Your task to perform on an android device: turn smart compose on in the gmail app Image 0: 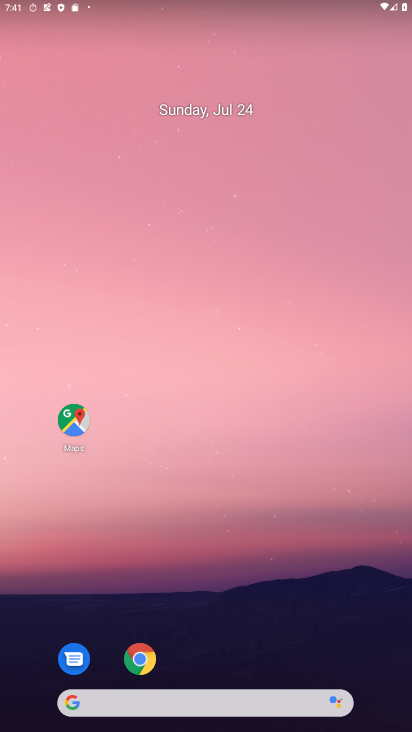
Step 0: drag from (331, 666) to (227, 123)
Your task to perform on an android device: turn smart compose on in the gmail app Image 1: 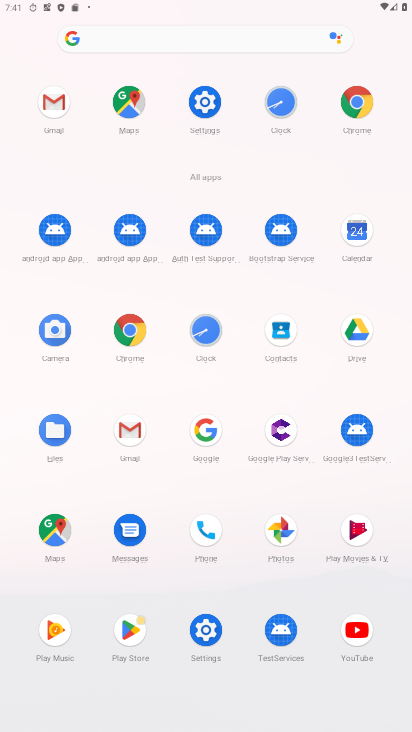
Step 1: click (57, 106)
Your task to perform on an android device: turn smart compose on in the gmail app Image 2: 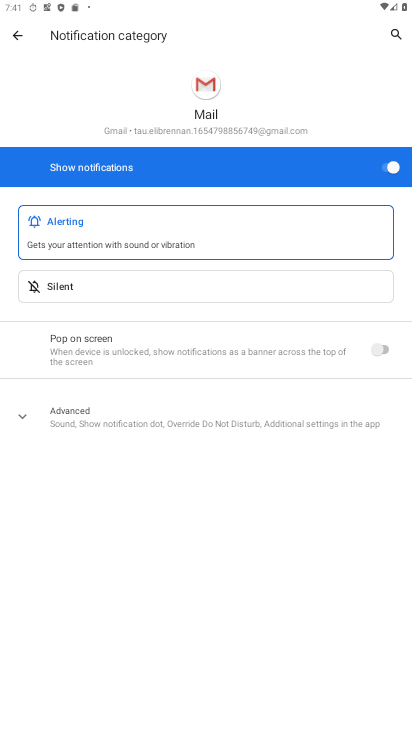
Step 2: click (20, 31)
Your task to perform on an android device: turn smart compose on in the gmail app Image 3: 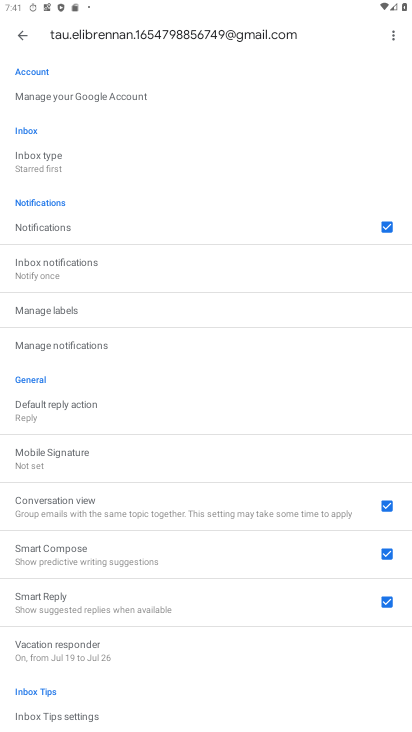
Step 3: click (23, 36)
Your task to perform on an android device: turn smart compose on in the gmail app Image 4: 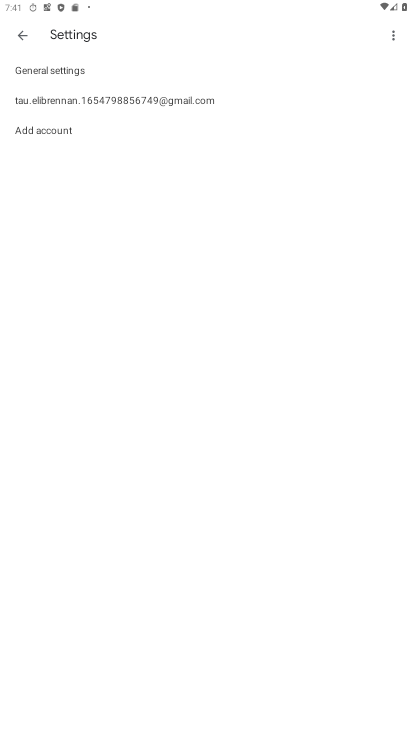
Step 4: click (23, 36)
Your task to perform on an android device: turn smart compose on in the gmail app Image 5: 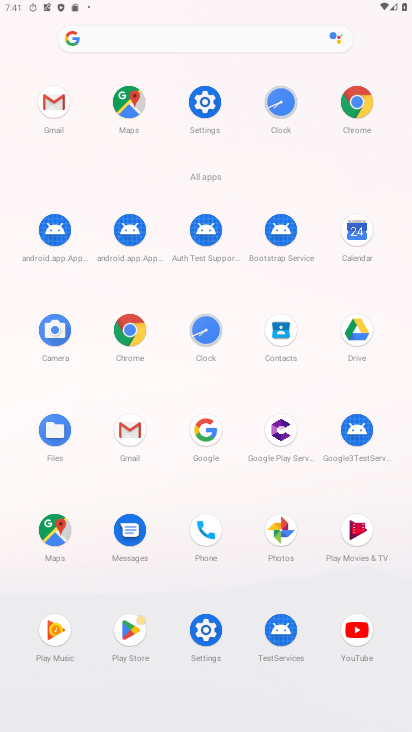
Step 5: click (61, 97)
Your task to perform on an android device: turn smart compose on in the gmail app Image 6: 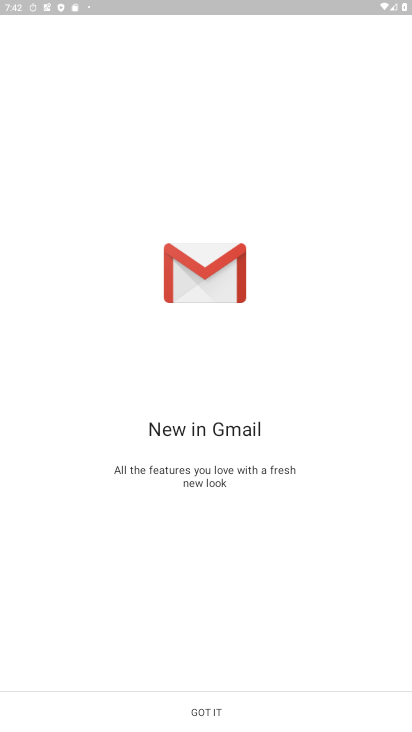
Step 6: click (220, 705)
Your task to perform on an android device: turn smart compose on in the gmail app Image 7: 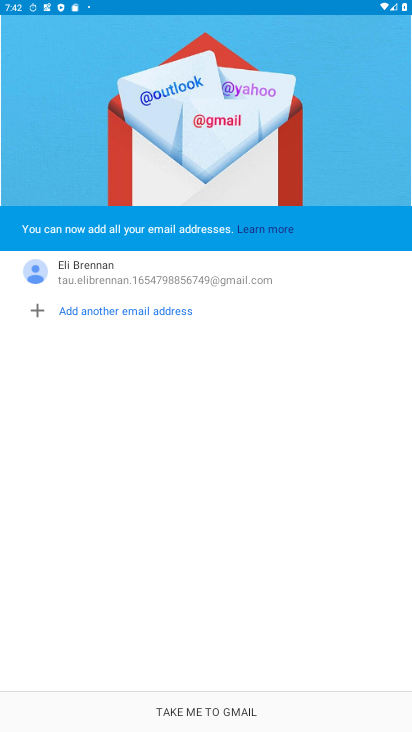
Step 7: click (220, 705)
Your task to perform on an android device: turn smart compose on in the gmail app Image 8: 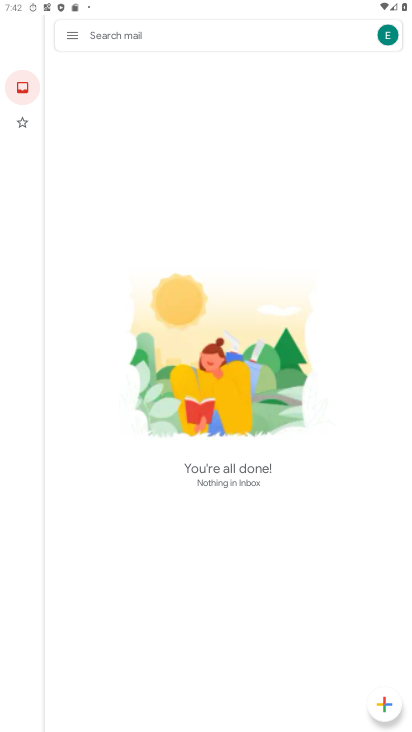
Step 8: click (68, 35)
Your task to perform on an android device: turn smart compose on in the gmail app Image 9: 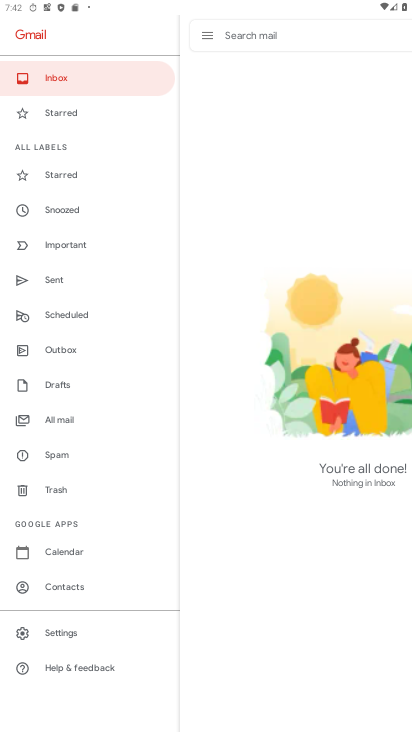
Step 9: click (58, 625)
Your task to perform on an android device: turn smart compose on in the gmail app Image 10: 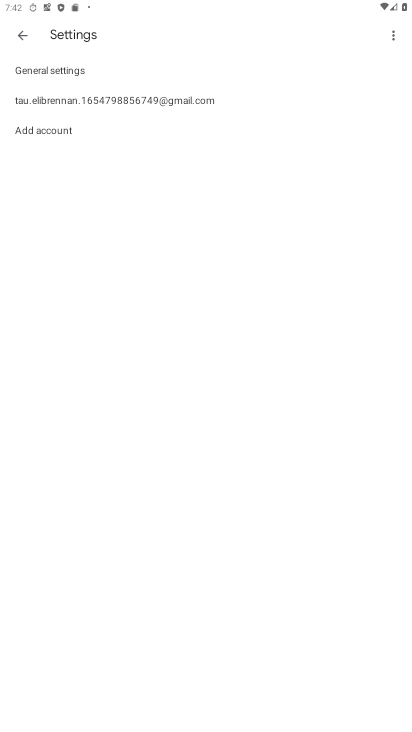
Step 10: click (173, 91)
Your task to perform on an android device: turn smart compose on in the gmail app Image 11: 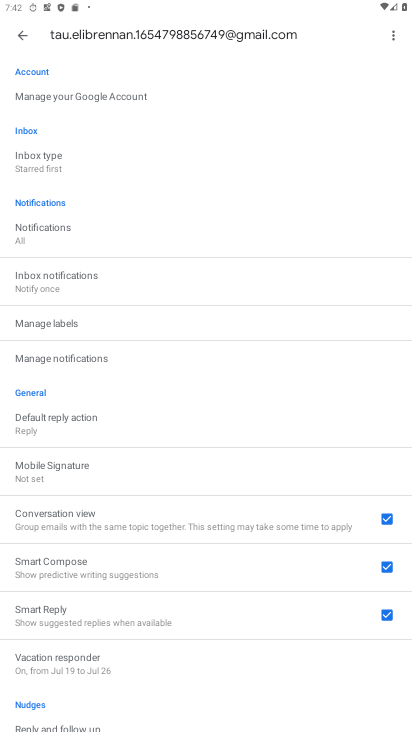
Step 11: click (391, 566)
Your task to perform on an android device: turn smart compose on in the gmail app Image 12: 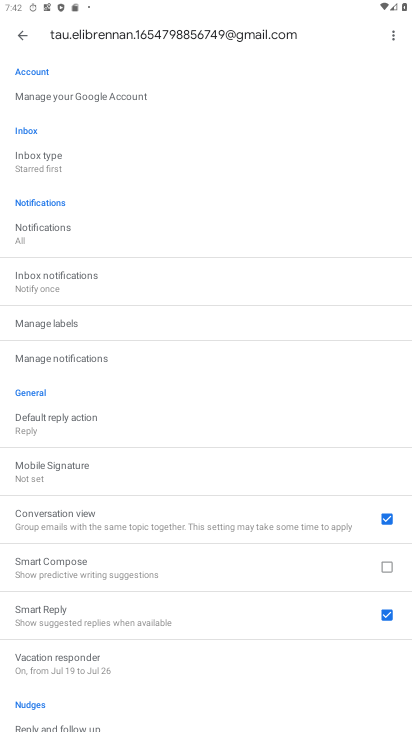
Step 12: click (387, 568)
Your task to perform on an android device: turn smart compose on in the gmail app Image 13: 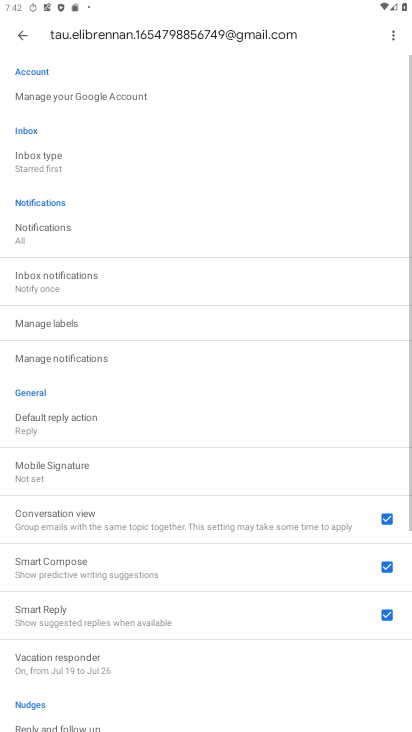
Step 13: task complete